Your task to perform on an android device: clear history in the chrome app Image 0: 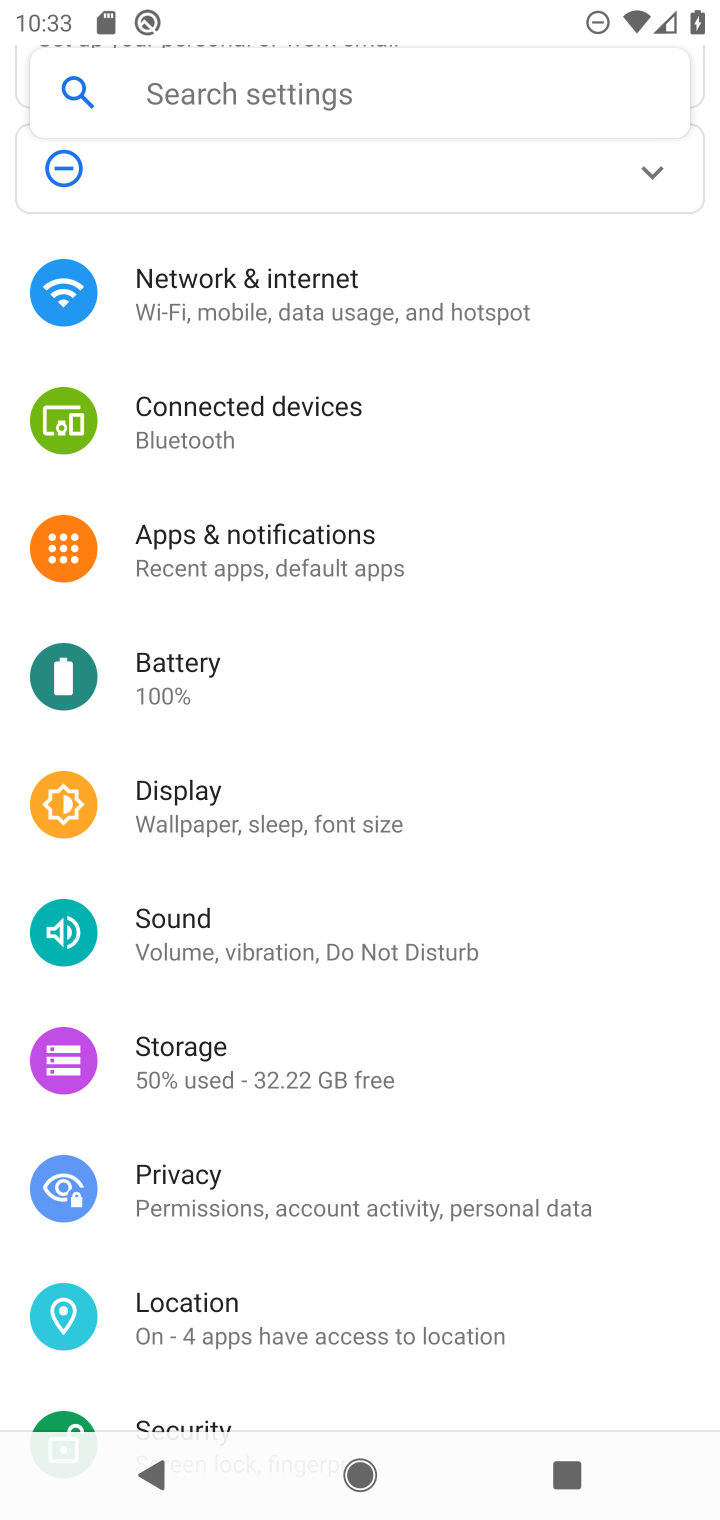
Step 0: press home button
Your task to perform on an android device: clear history in the chrome app Image 1: 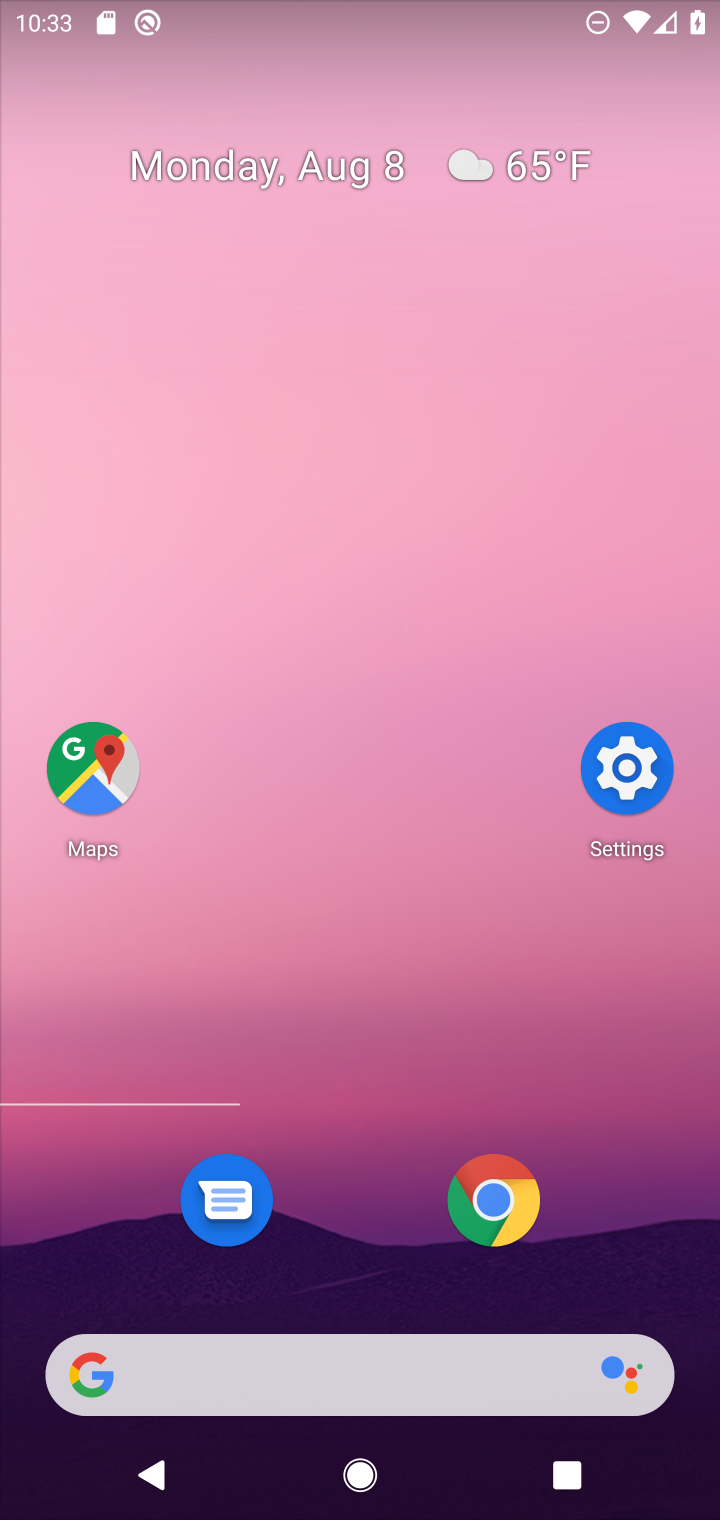
Step 1: click (490, 1208)
Your task to perform on an android device: clear history in the chrome app Image 2: 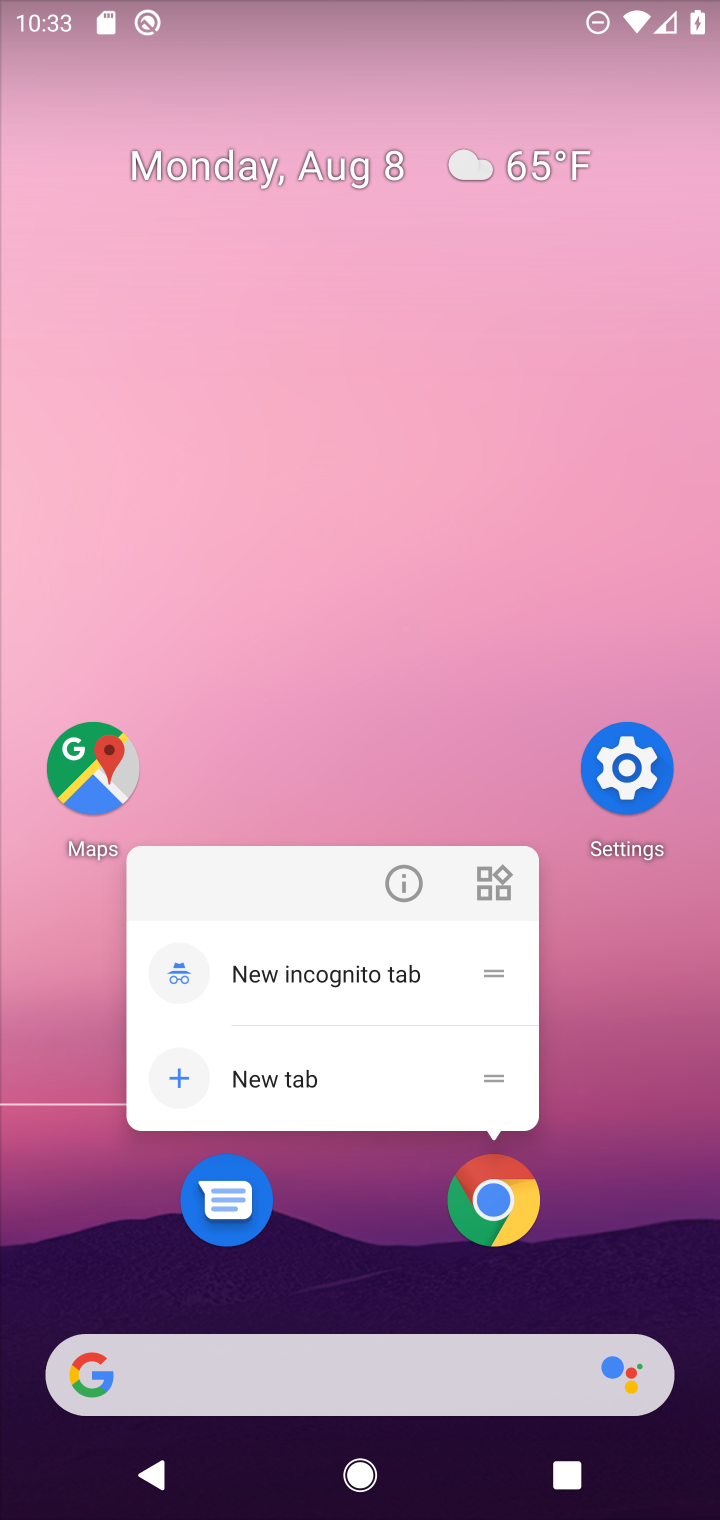
Step 2: click (503, 1209)
Your task to perform on an android device: clear history in the chrome app Image 3: 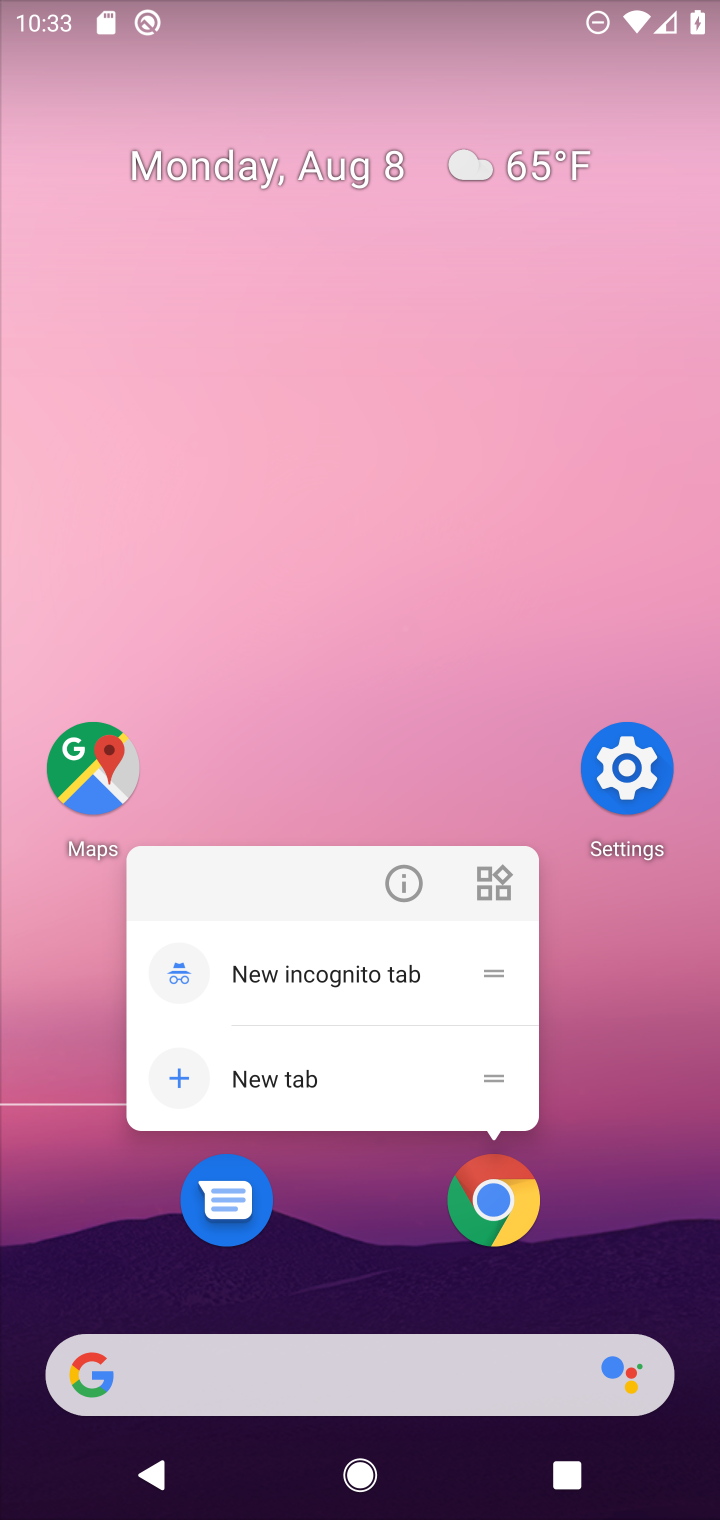
Step 3: click (505, 1224)
Your task to perform on an android device: clear history in the chrome app Image 4: 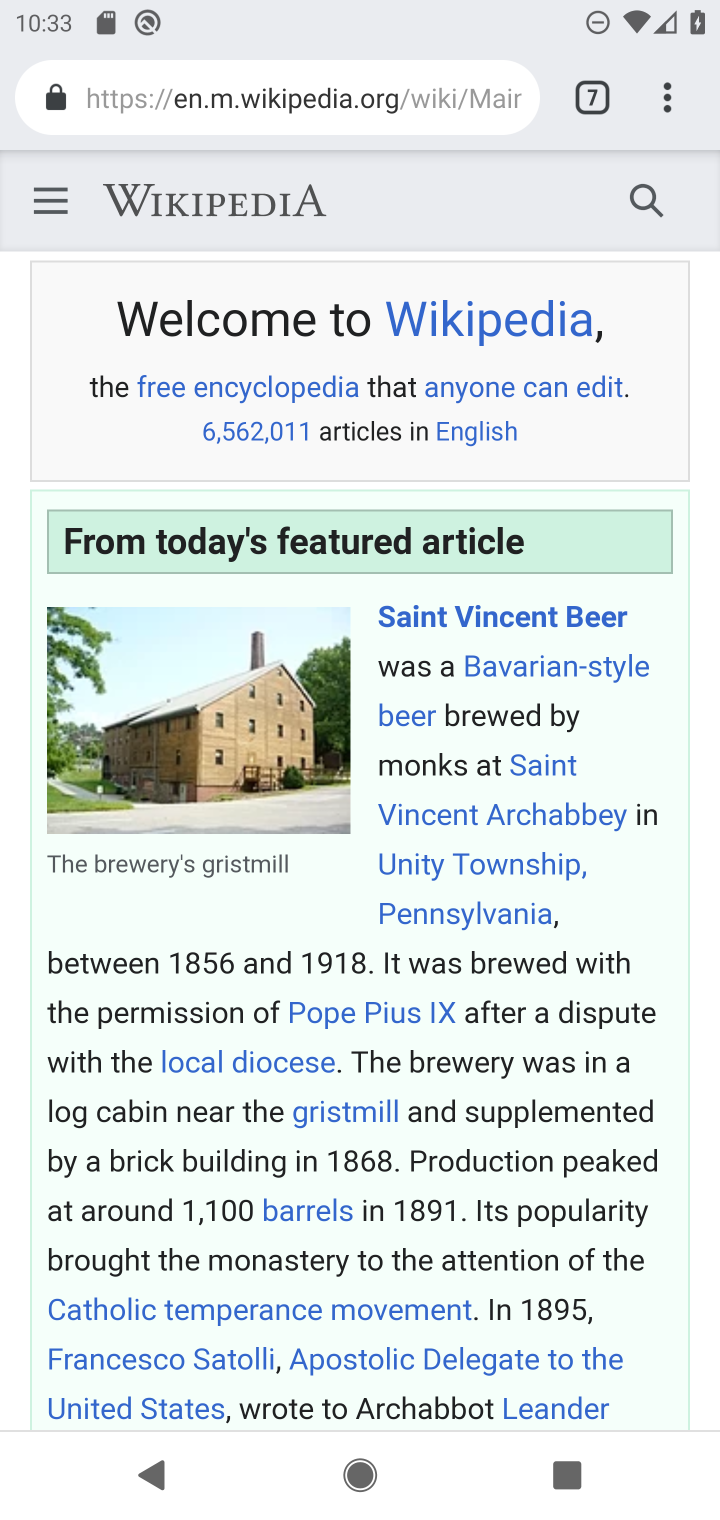
Step 4: drag from (663, 83) to (376, 672)
Your task to perform on an android device: clear history in the chrome app Image 5: 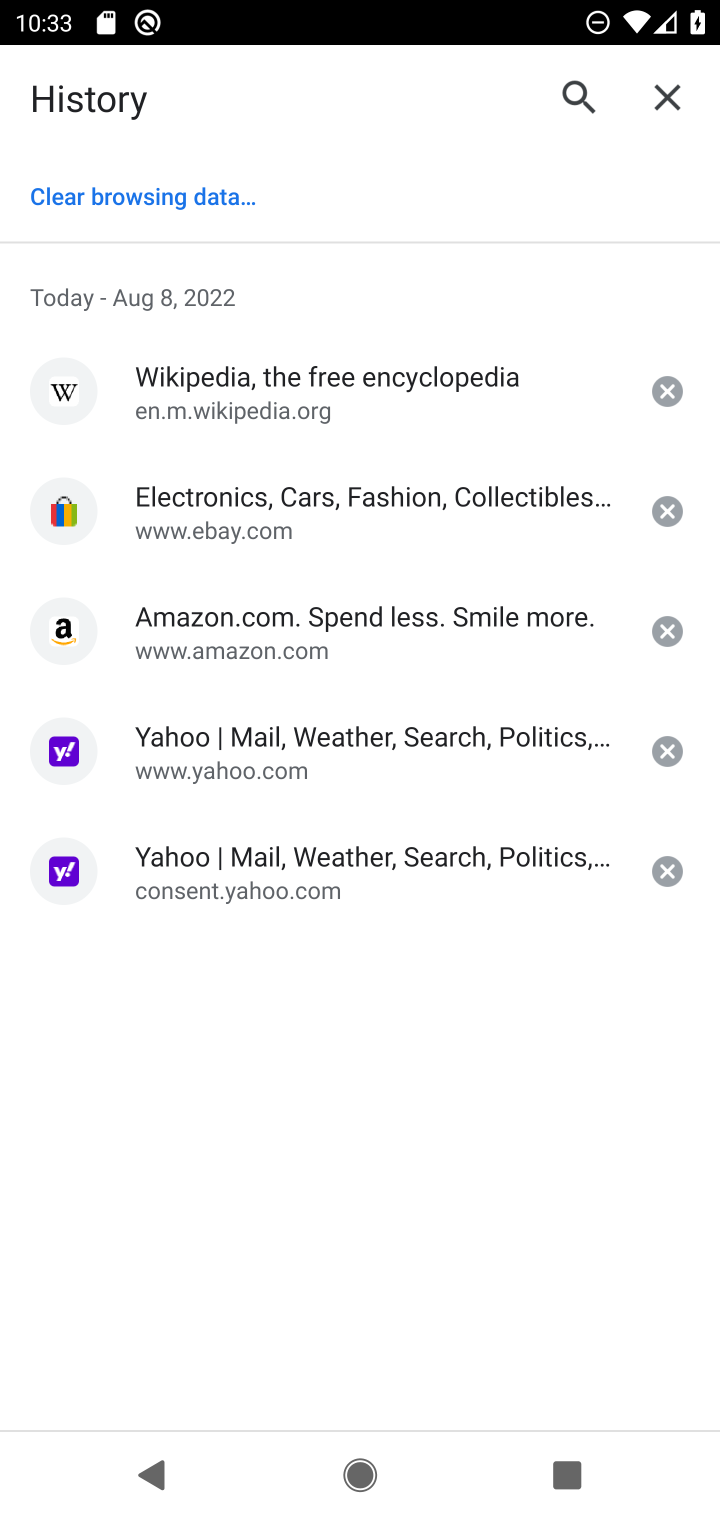
Step 5: click (167, 191)
Your task to perform on an android device: clear history in the chrome app Image 6: 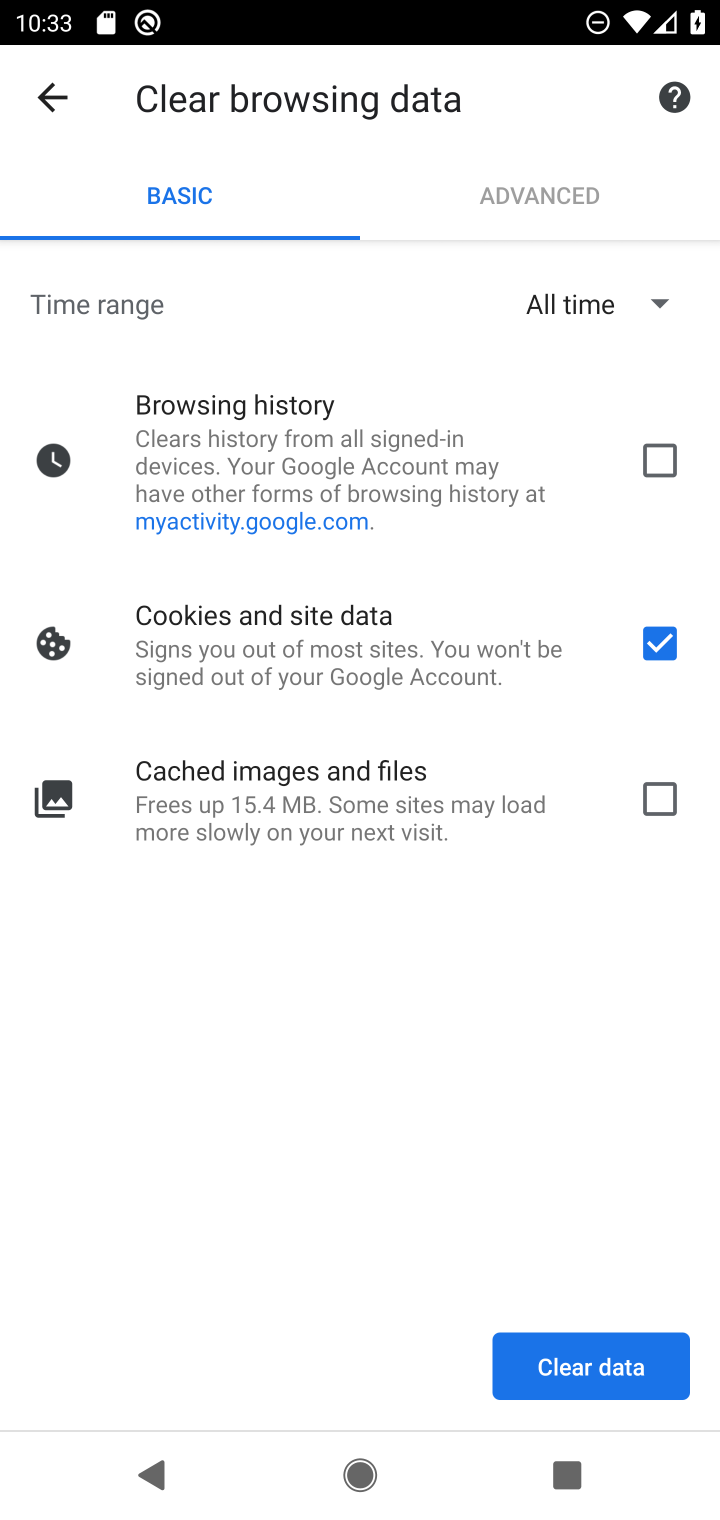
Step 6: click (657, 805)
Your task to perform on an android device: clear history in the chrome app Image 7: 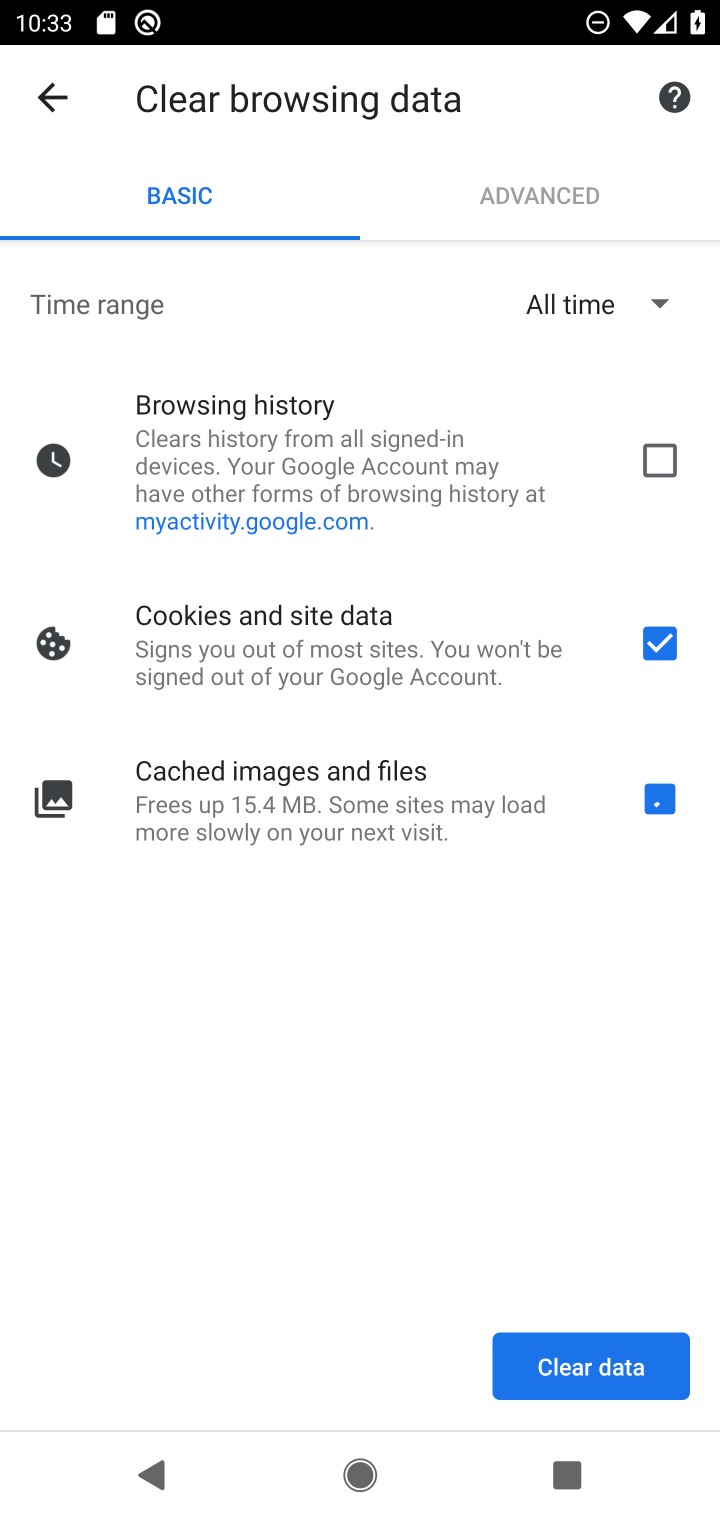
Step 7: click (668, 462)
Your task to perform on an android device: clear history in the chrome app Image 8: 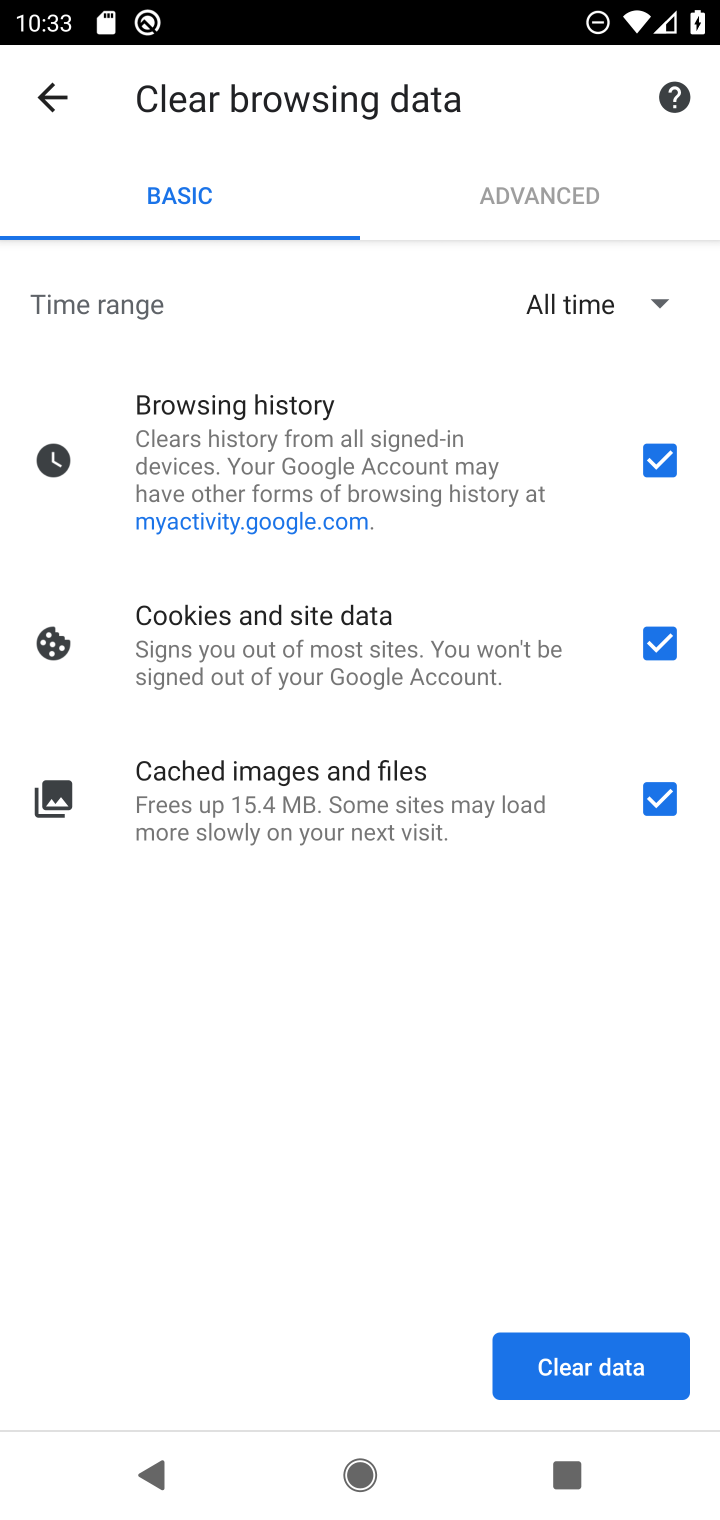
Step 8: click (618, 1360)
Your task to perform on an android device: clear history in the chrome app Image 9: 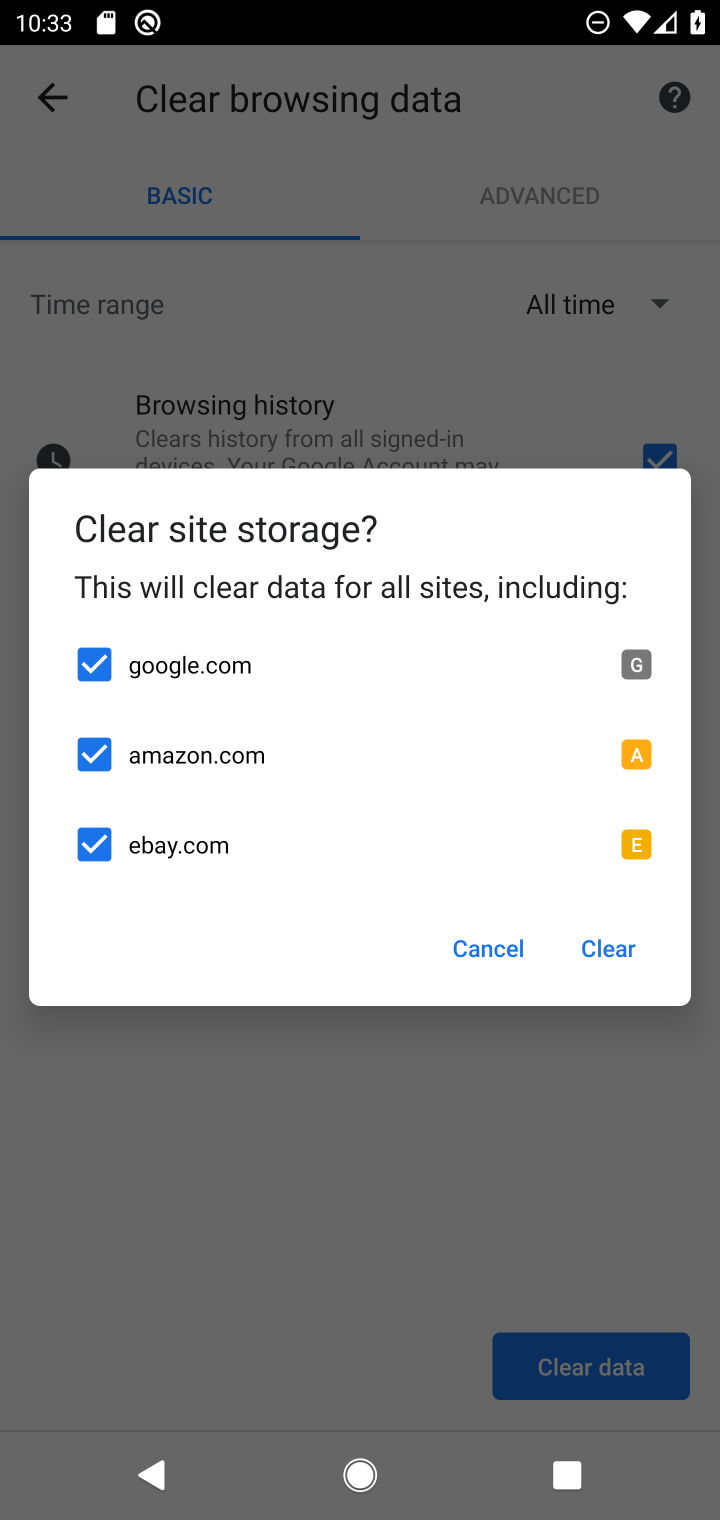
Step 9: click (614, 928)
Your task to perform on an android device: clear history in the chrome app Image 10: 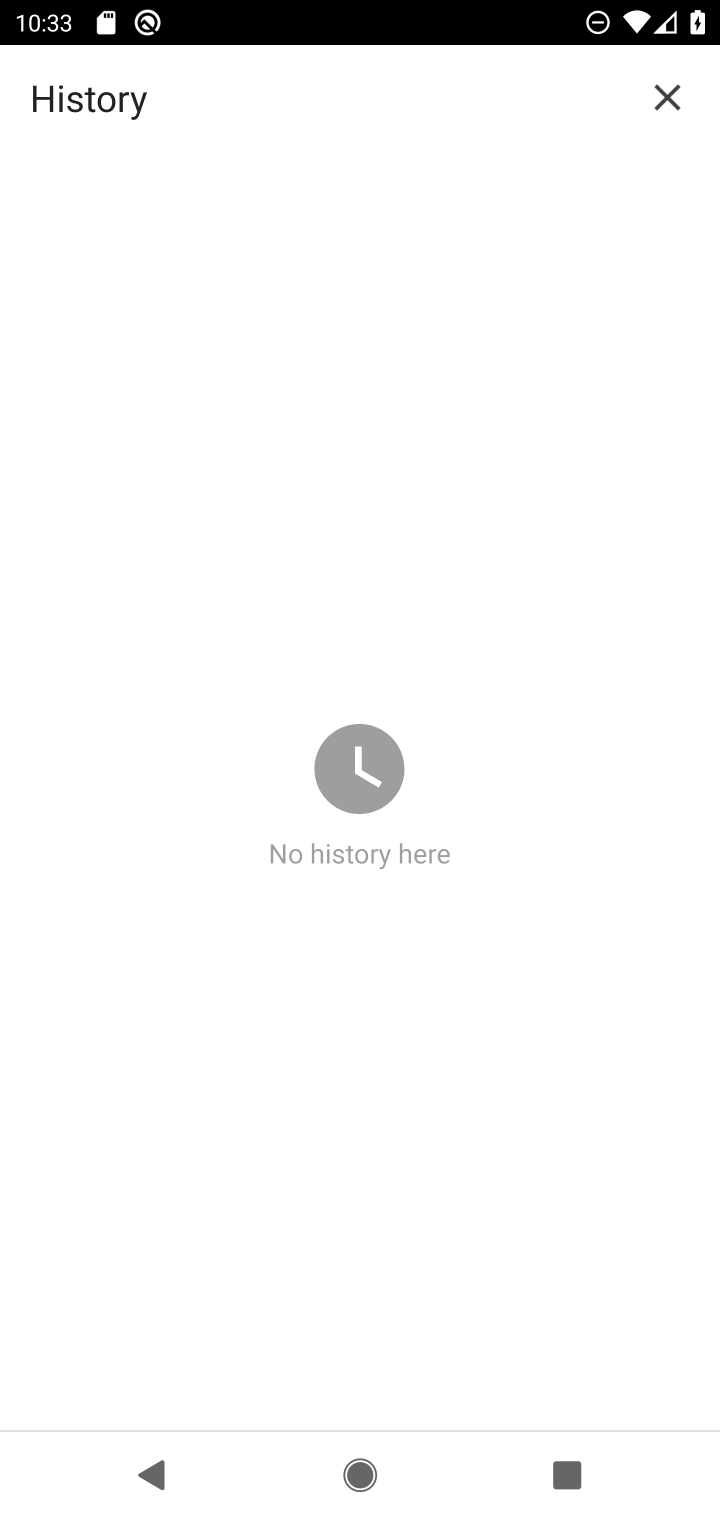
Step 10: task complete